Your task to perform on an android device: manage bookmarks in the chrome app Image 0: 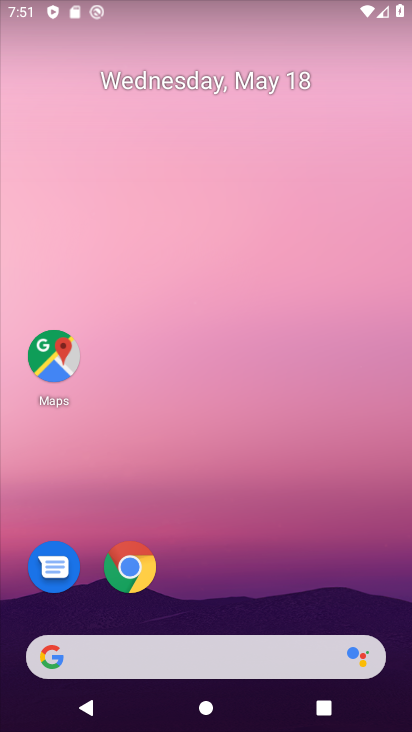
Step 0: click (124, 563)
Your task to perform on an android device: manage bookmarks in the chrome app Image 1: 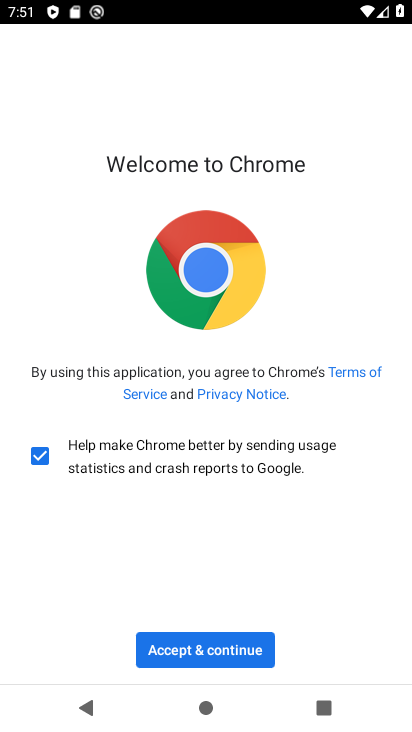
Step 1: click (177, 653)
Your task to perform on an android device: manage bookmarks in the chrome app Image 2: 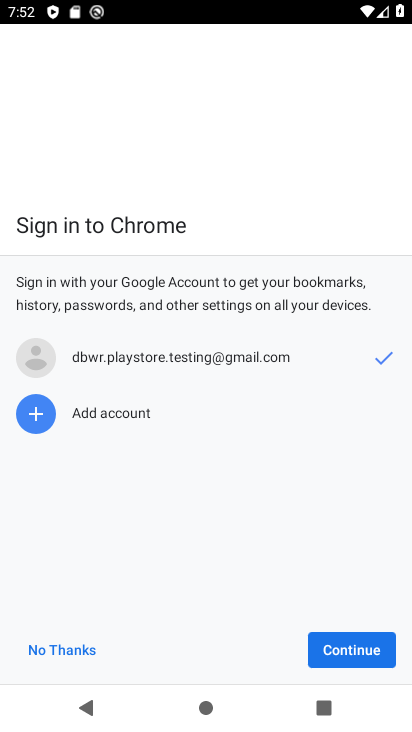
Step 2: click (334, 655)
Your task to perform on an android device: manage bookmarks in the chrome app Image 3: 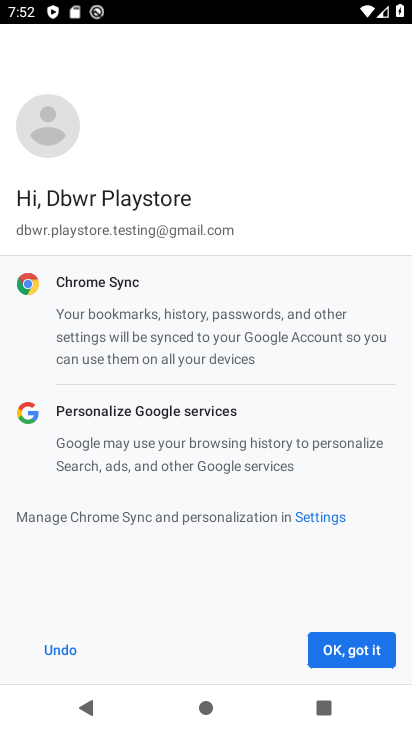
Step 3: click (387, 642)
Your task to perform on an android device: manage bookmarks in the chrome app Image 4: 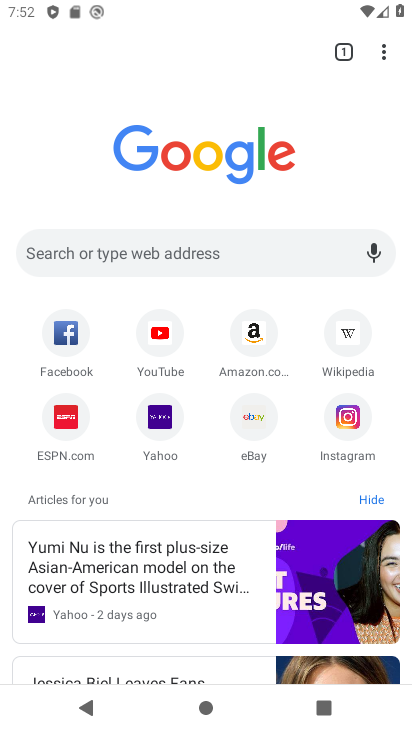
Step 4: click (383, 54)
Your task to perform on an android device: manage bookmarks in the chrome app Image 5: 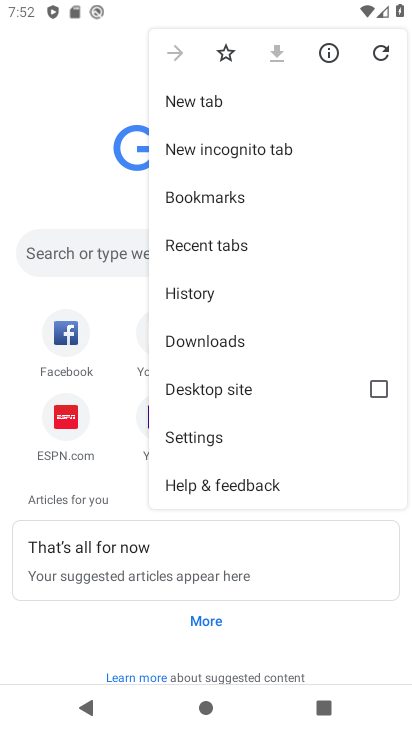
Step 5: click (226, 196)
Your task to perform on an android device: manage bookmarks in the chrome app Image 6: 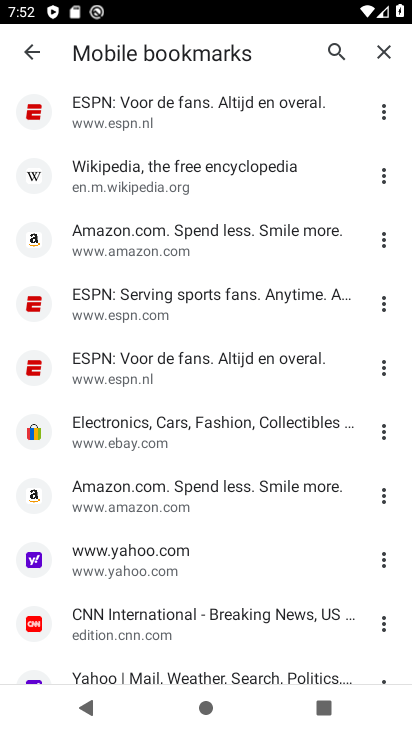
Step 6: click (386, 112)
Your task to perform on an android device: manage bookmarks in the chrome app Image 7: 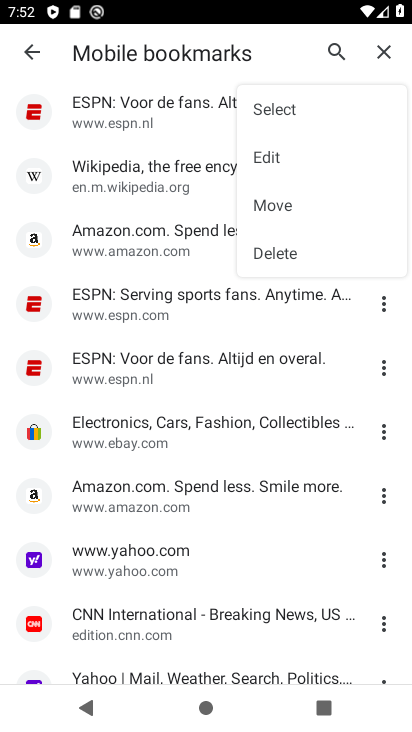
Step 7: task complete